Your task to perform on an android device: Open Google Chrome and open the bookmarks view Image 0: 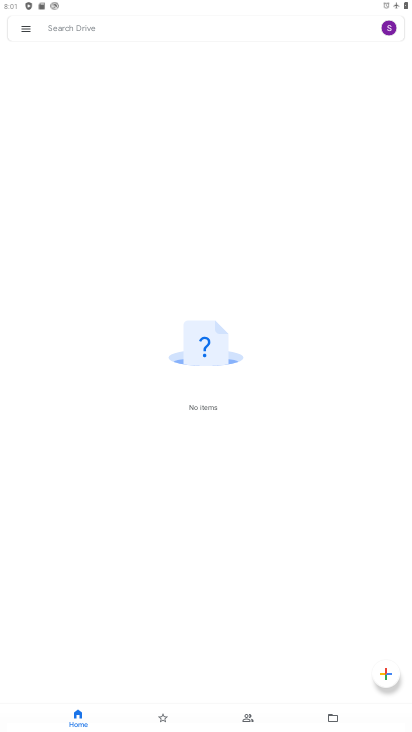
Step 0: press home button
Your task to perform on an android device: Open Google Chrome and open the bookmarks view Image 1: 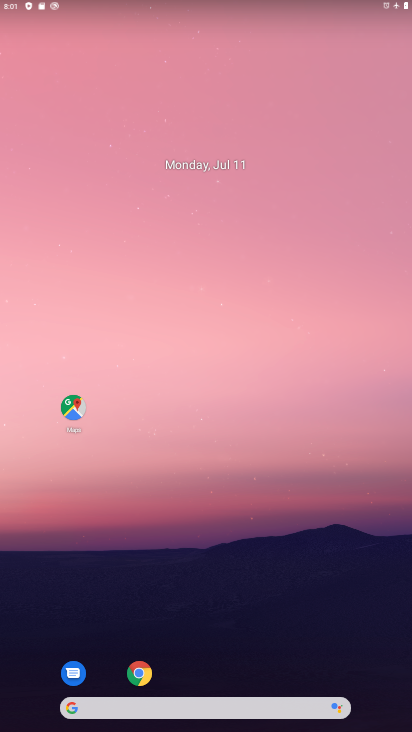
Step 1: drag from (267, 666) to (267, 89)
Your task to perform on an android device: Open Google Chrome and open the bookmarks view Image 2: 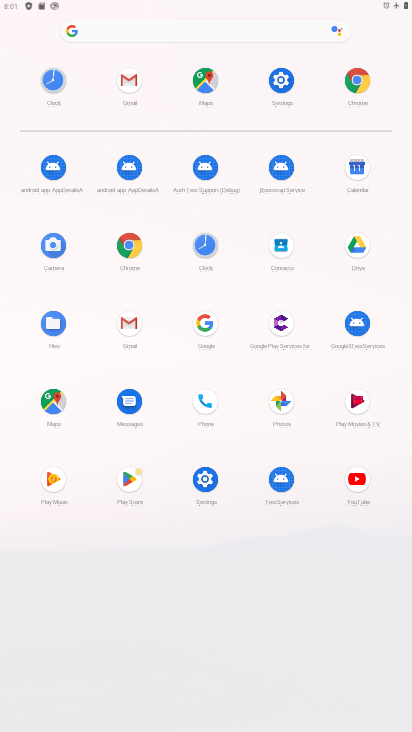
Step 2: click (365, 83)
Your task to perform on an android device: Open Google Chrome and open the bookmarks view Image 3: 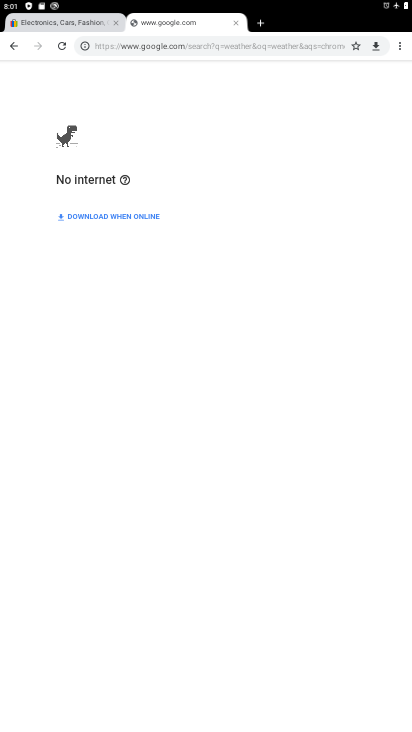
Step 3: click (401, 39)
Your task to perform on an android device: Open Google Chrome and open the bookmarks view Image 4: 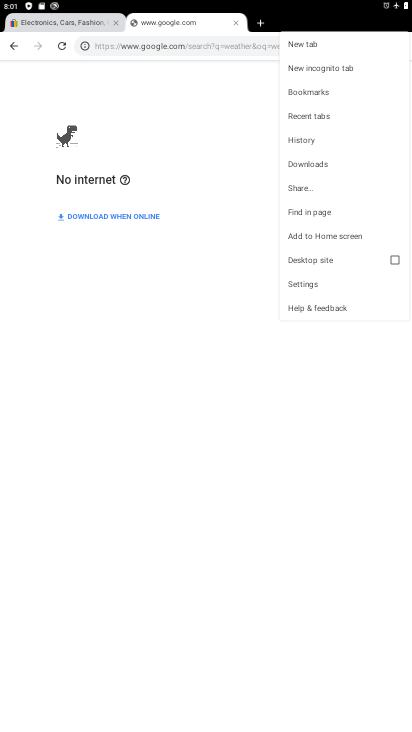
Step 4: click (319, 94)
Your task to perform on an android device: Open Google Chrome and open the bookmarks view Image 5: 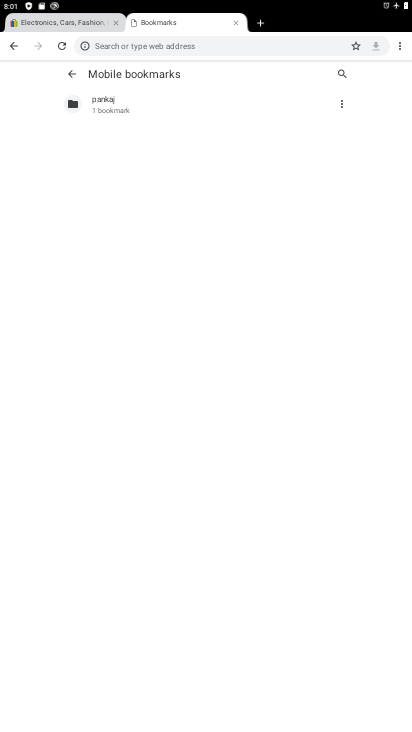
Step 5: task complete